Your task to perform on an android device: show emergency info Image 0: 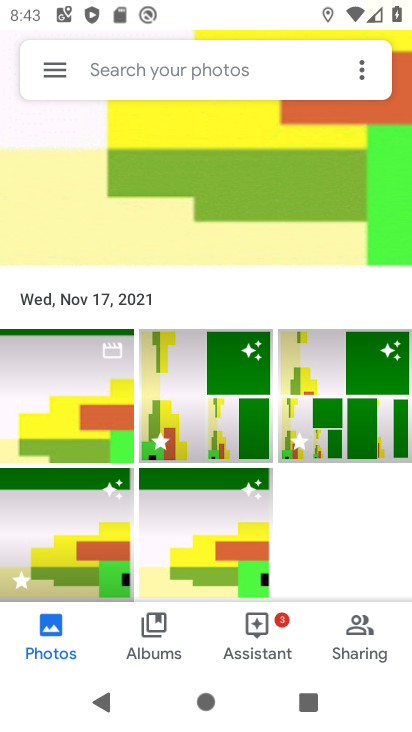
Step 0: press home button
Your task to perform on an android device: show emergency info Image 1: 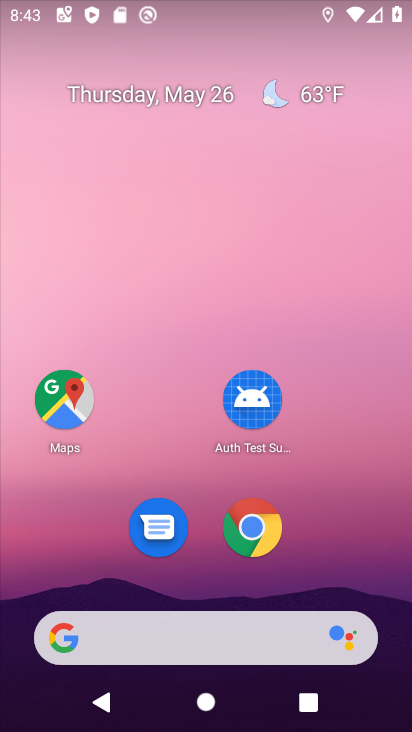
Step 1: drag from (399, 507) to (386, 105)
Your task to perform on an android device: show emergency info Image 2: 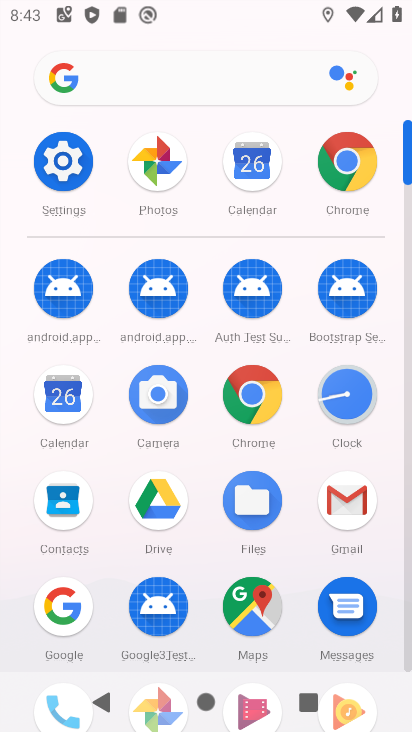
Step 2: click (70, 171)
Your task to perform on an android device: show emergency info Image 3: 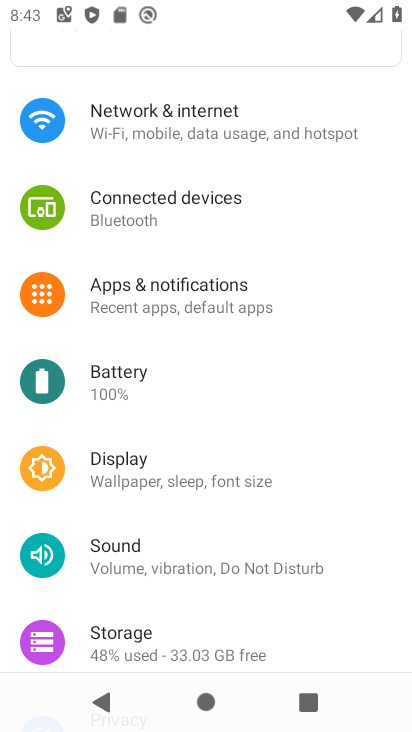
Step 3: drag from (225, 584) to (228, 56)
Your task to perform on an android device: show emergency info Image 4: 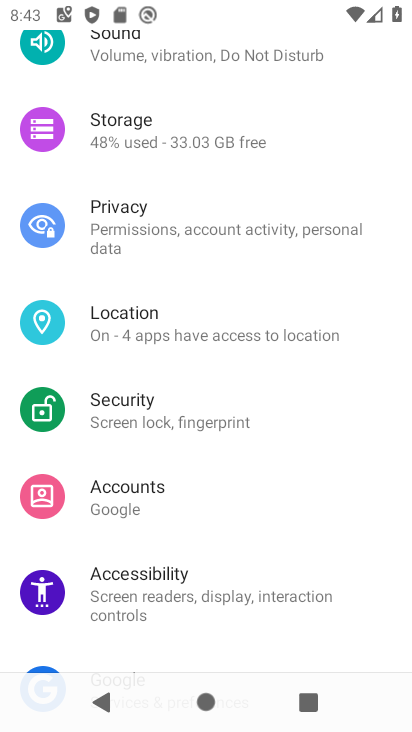
Step 4: drag from (274, 317) to (277, 47)
Your task to perform on an android device: show emergency info Image 5: 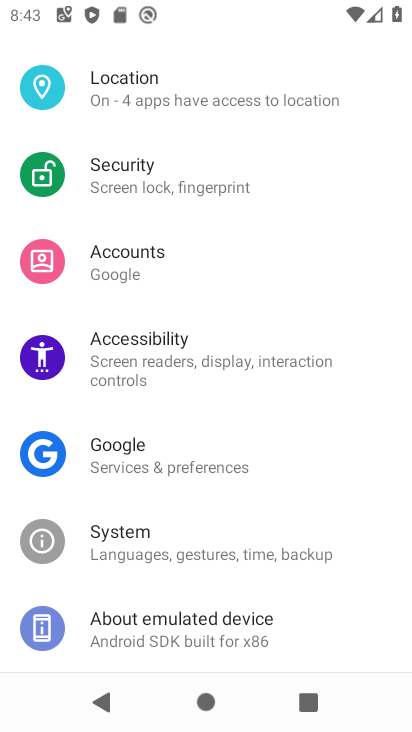
Step 5: drag from (199, 523) to (203, 141)
Your task to perform on an android device: show emergency info Image 6: 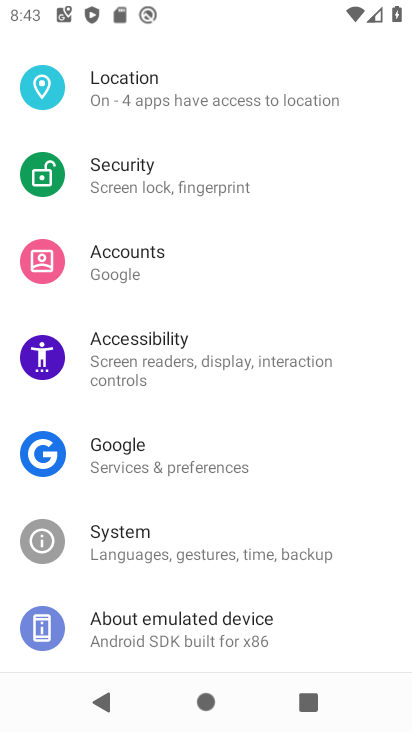
Step 6: click (215, 637)
Your task to perform on an android device: show emergency info Image 7: 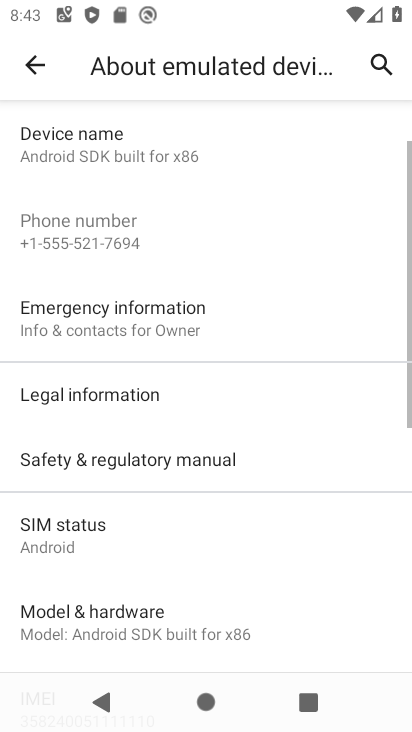
Step 7: drag from (208, 617) to (233, 227)
Your task to perform on an android device: show emergency info Image 8: 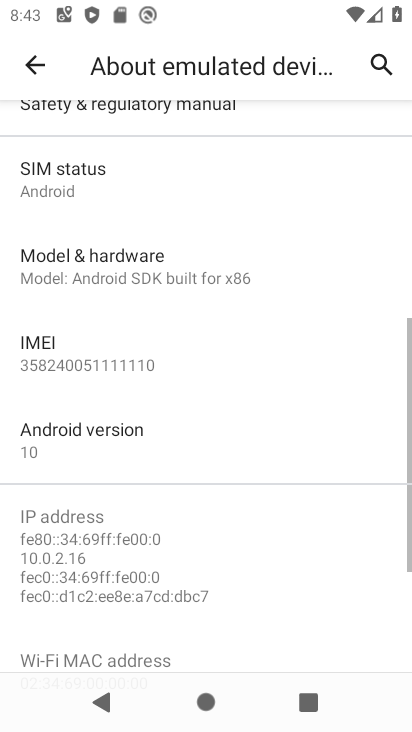
Step 8: drag from (163, 188) to (188, 577)
Your task to perform on an android device: show emergency info Image 9: 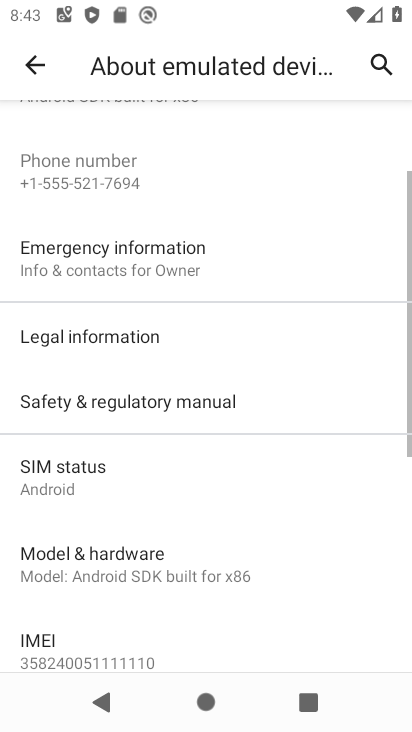
Step 9: click (117, 254)
Your task to perform on an android device: show emergency info Image 10: 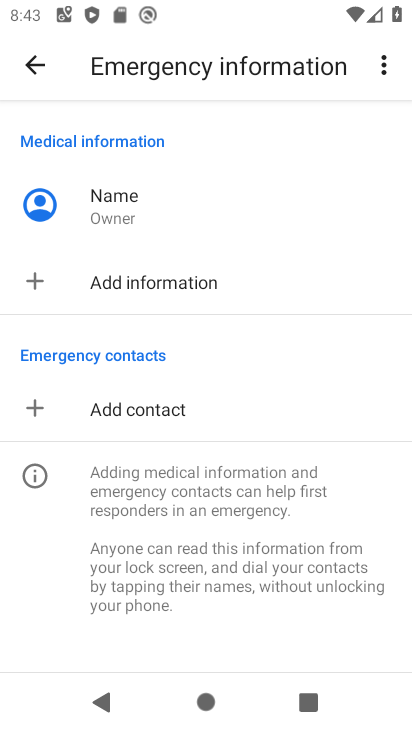
Step 10: task complete